Your task to perform on an android device: open a bookmark in the chrome app Image 0: 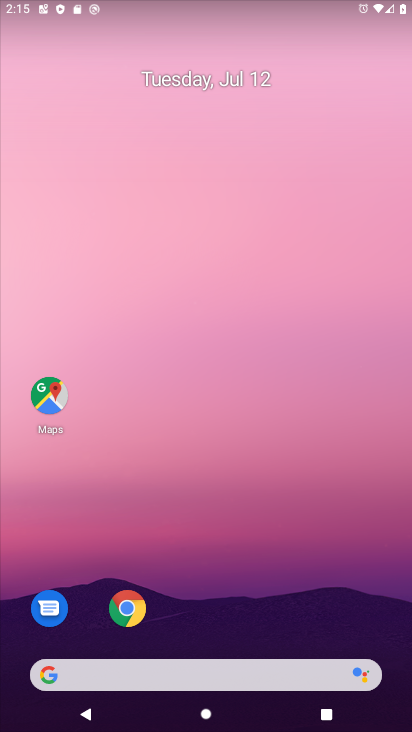
Step 0: drag from (344, 507) to (274, 132)
Your task to perform on an android device: open a bookmark in the chrome app Image 1: 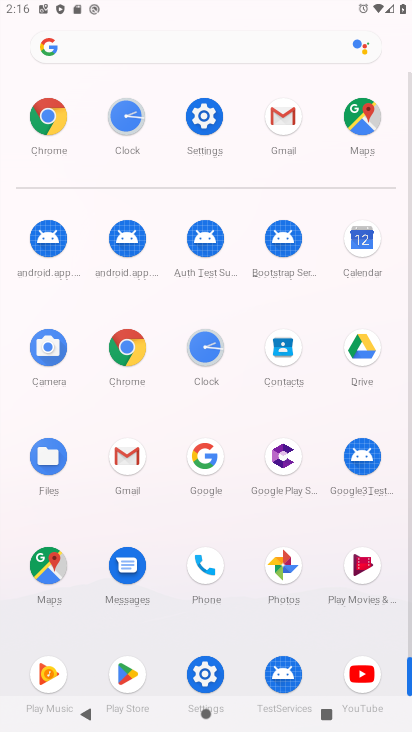
Step 1: click (126, 345)
Your task to perform on an android device: open a bookmark in the chrome app Image 2: 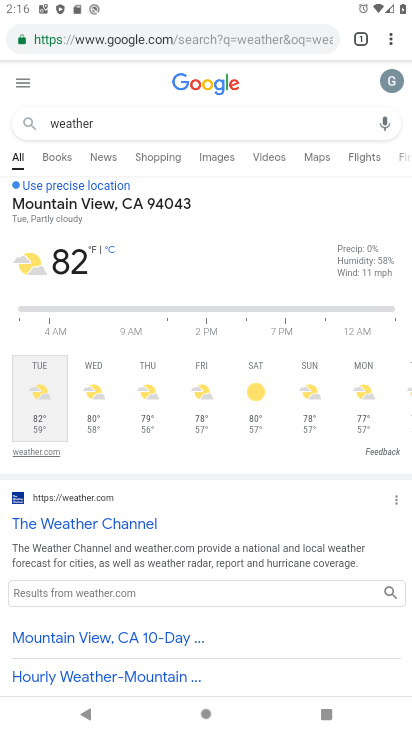
Step 2: drag from (394, 32) to (268, 206)
Your task to perform on an android device: open a bookmark in the chrome app Image 3: 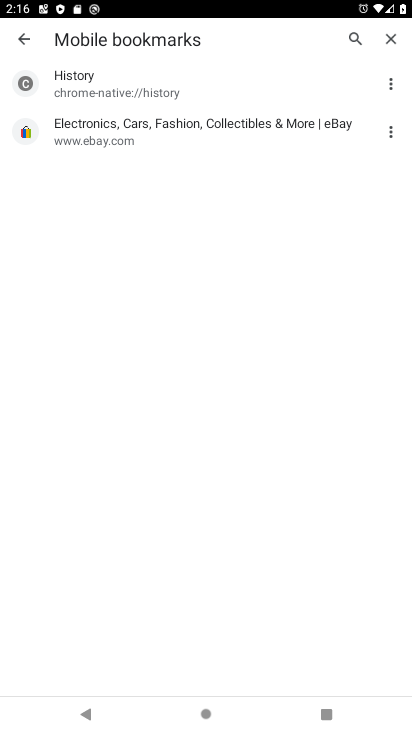
Step 3: click (227, 131)
Your task to perform on an android device: open a bookmark in the chrome app Image 4: 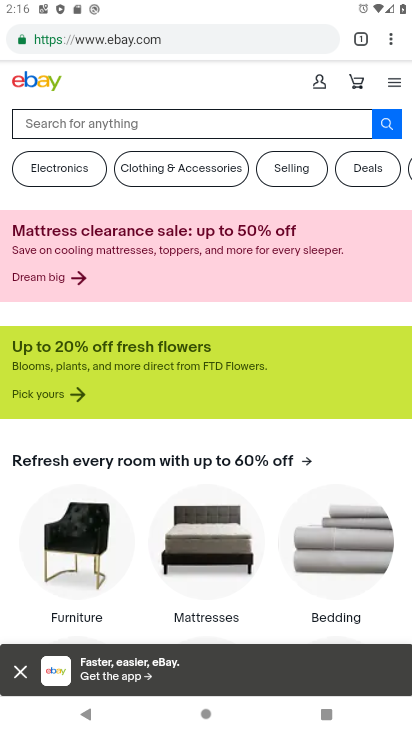
Step 4: task complete